Your task to perform on an android device: Add "alienware area 51" to the cart on amazon, then select checkout. Image 0: 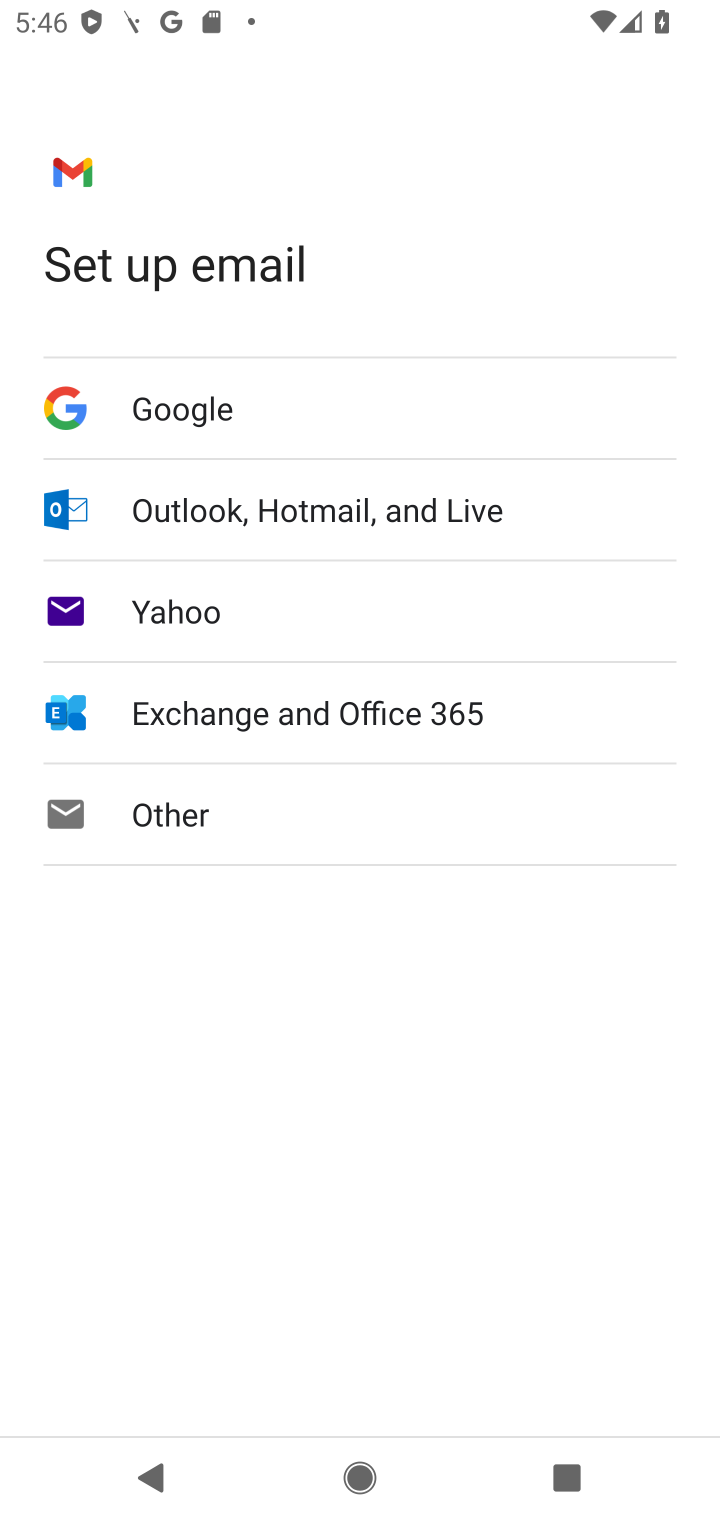
Step 0: press home button
Your task to perform on an android device: Add "alienware area 51" to the cart on amazon, then select checkout. Image 1: 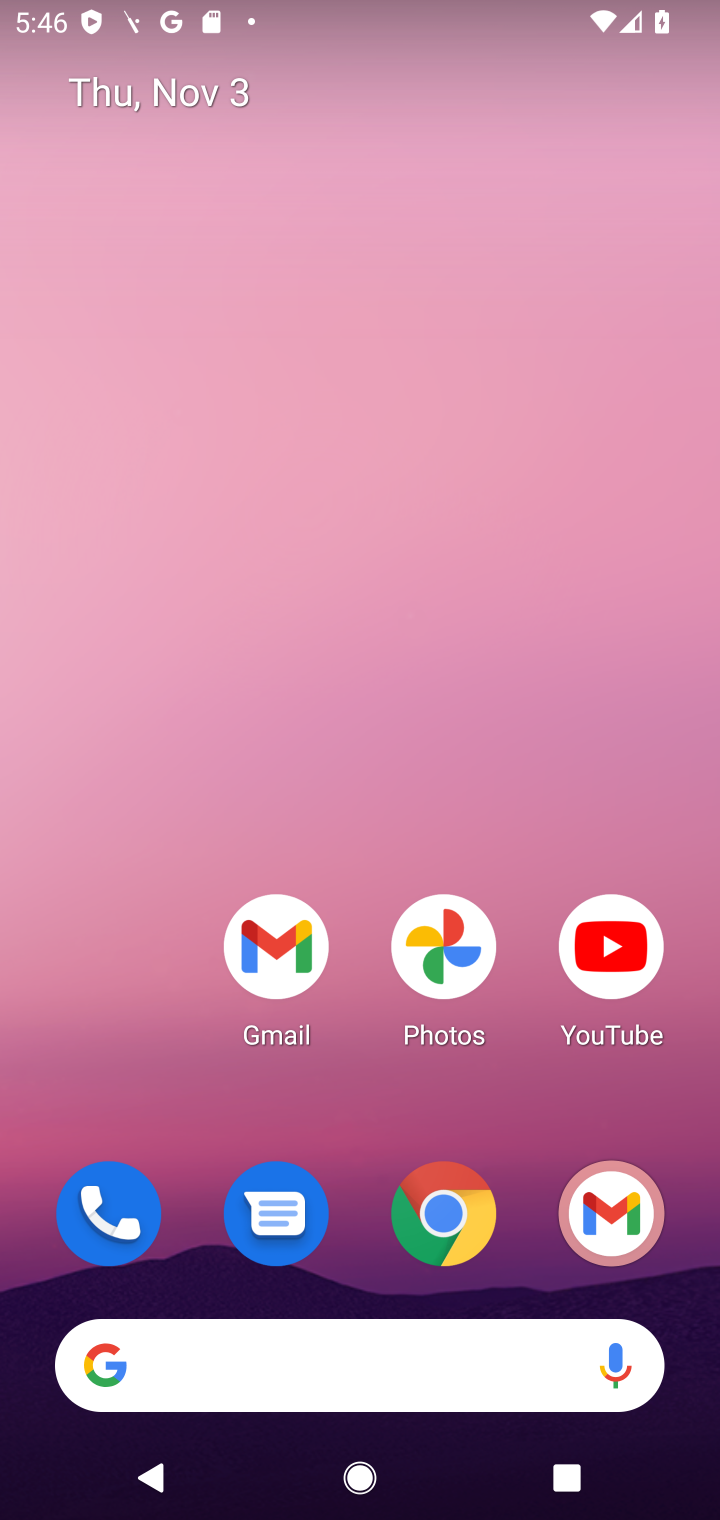
Step 1: click (456, 1234)
Your task to perform on an android device: Add "alienware area 51" to the cart on amazon, then select checkout. Image 2: 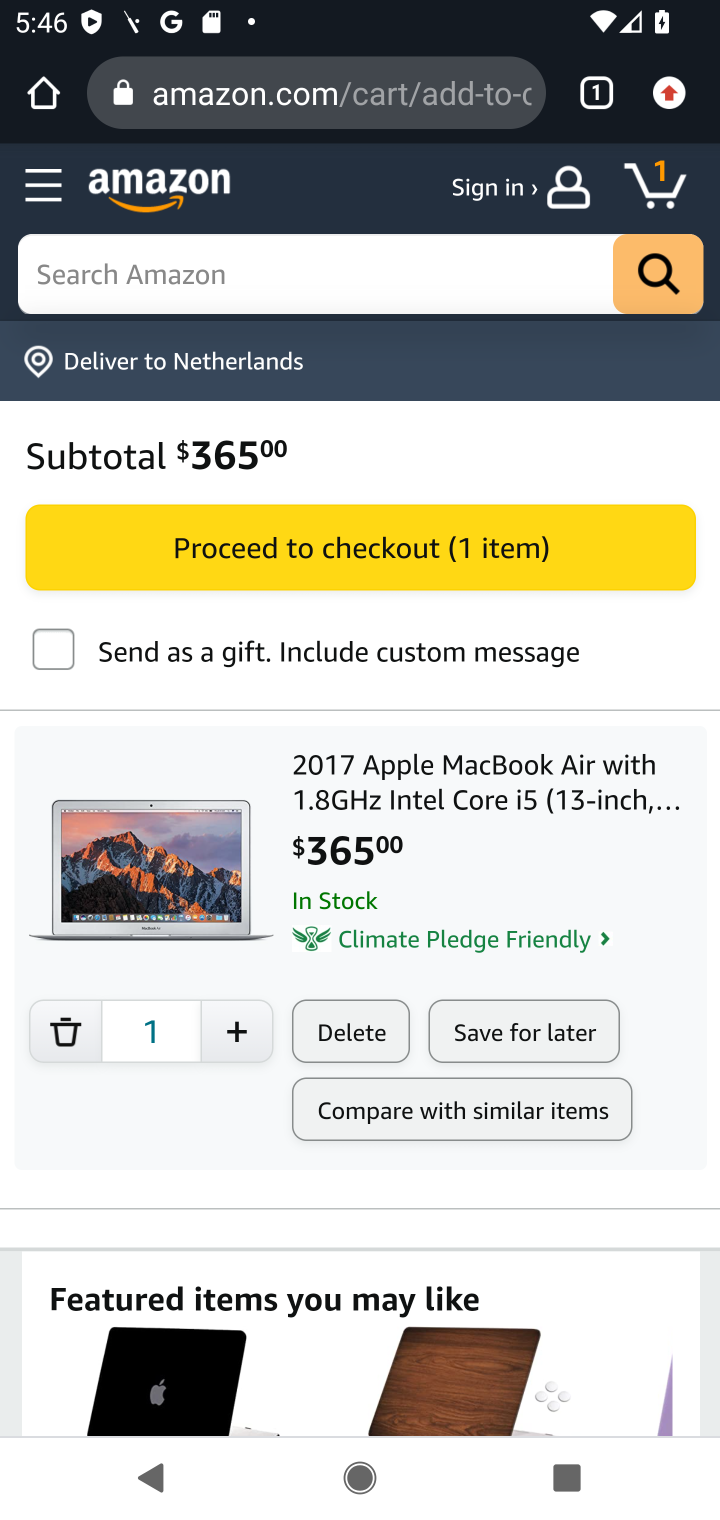
Step 2: click (273, 286)
Your task to perform on an android device: Add "alienware area 51" to the cart on amazon, then select checkout. Image 3: 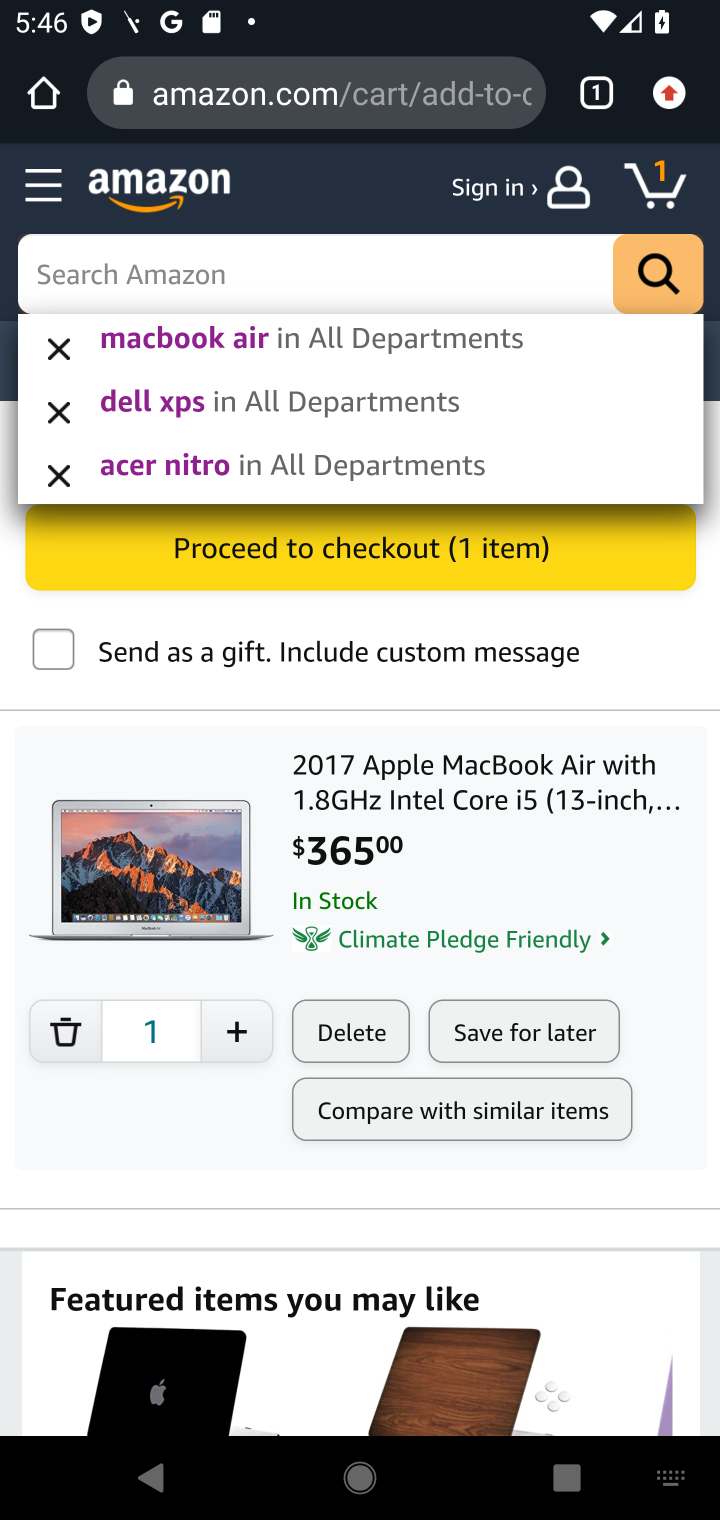
Step 3: type "alienware area 51"
Your task to perform on an android device: Add "alienware area 51" to the cart on amazon, then select checkout. Image 4: 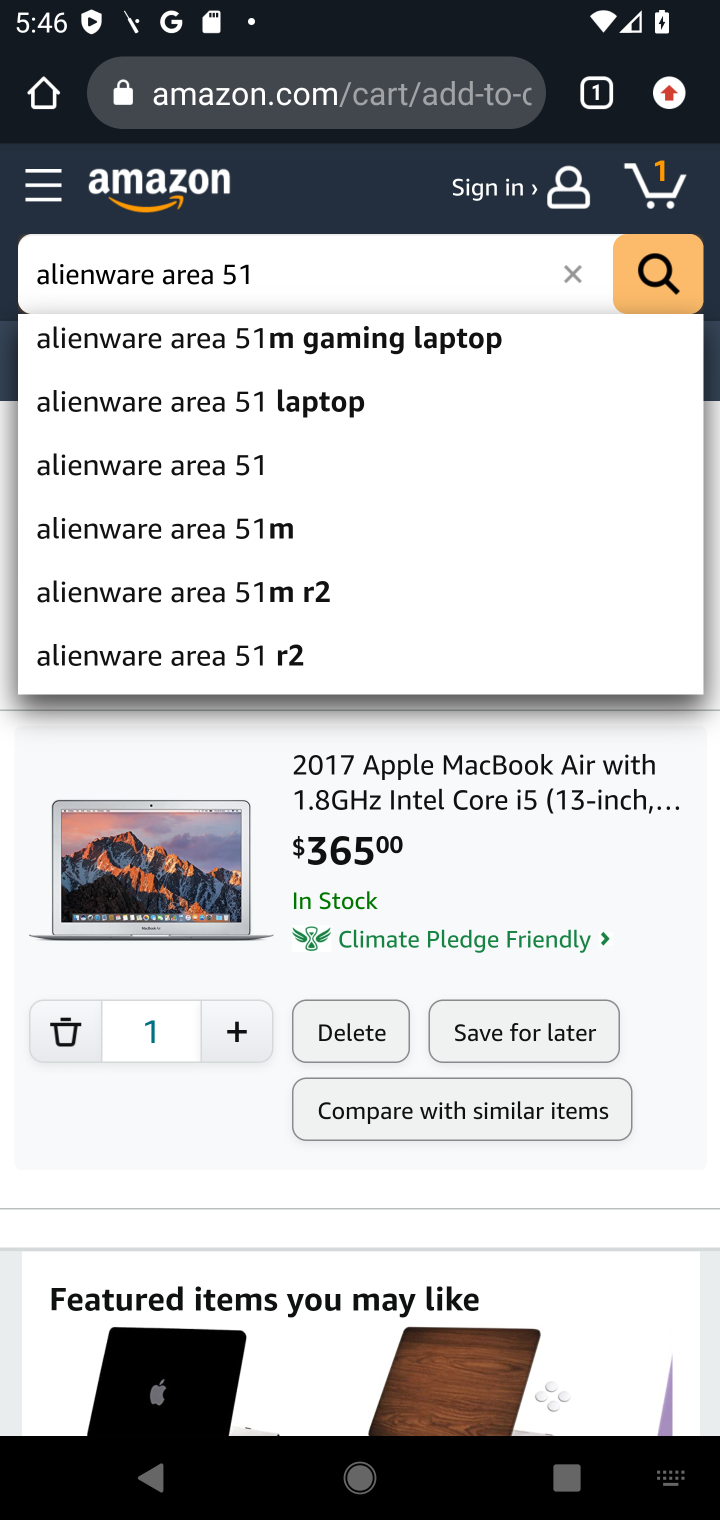
Step 4: click (661, 274)
Your task to perform on an android device: Add "alienware area 51" to the cart on amazon, then select checkout. Image 5: 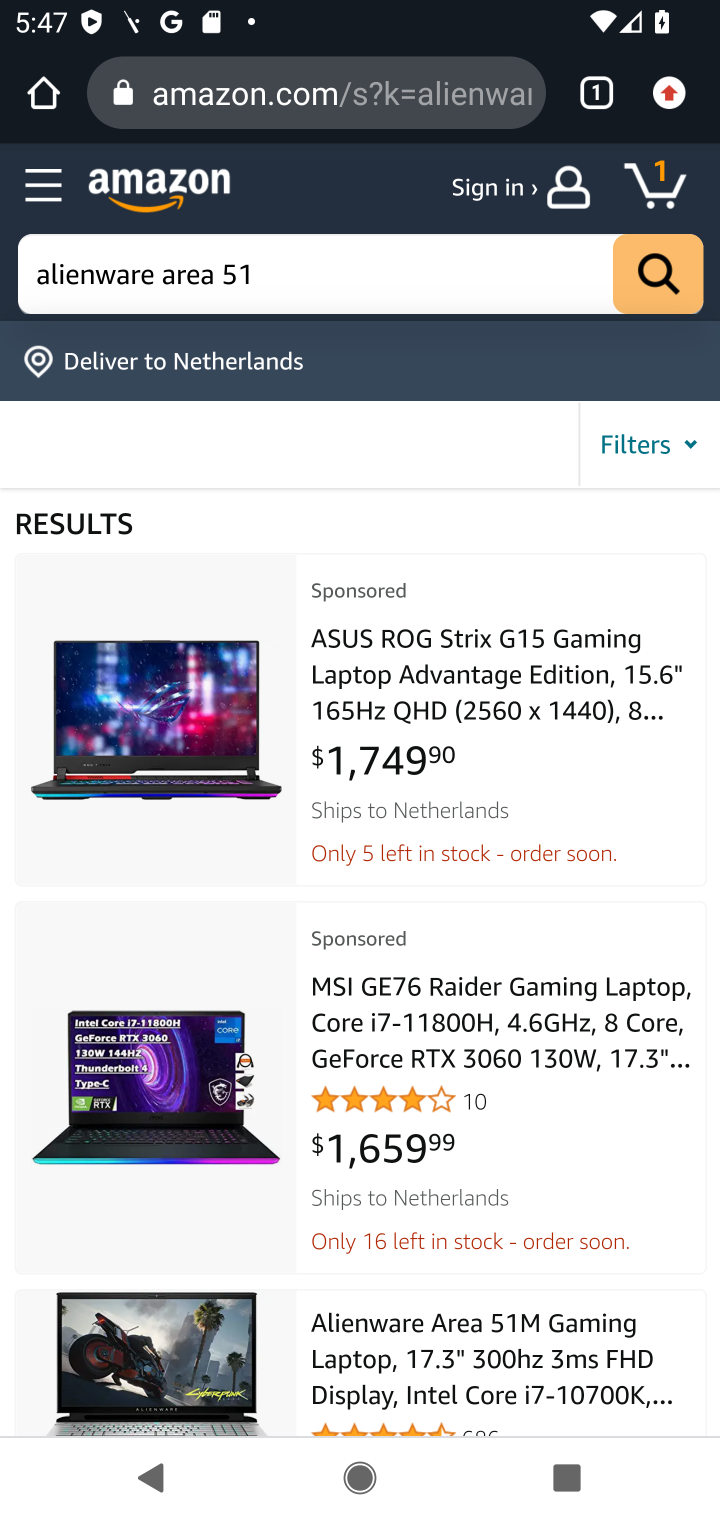
Step 5: drag from (255, 1183) to (332, 656)
Your task to perform on an android device: Add "alienware area 51" to the cart on amazon, then select checkout. Image 6: 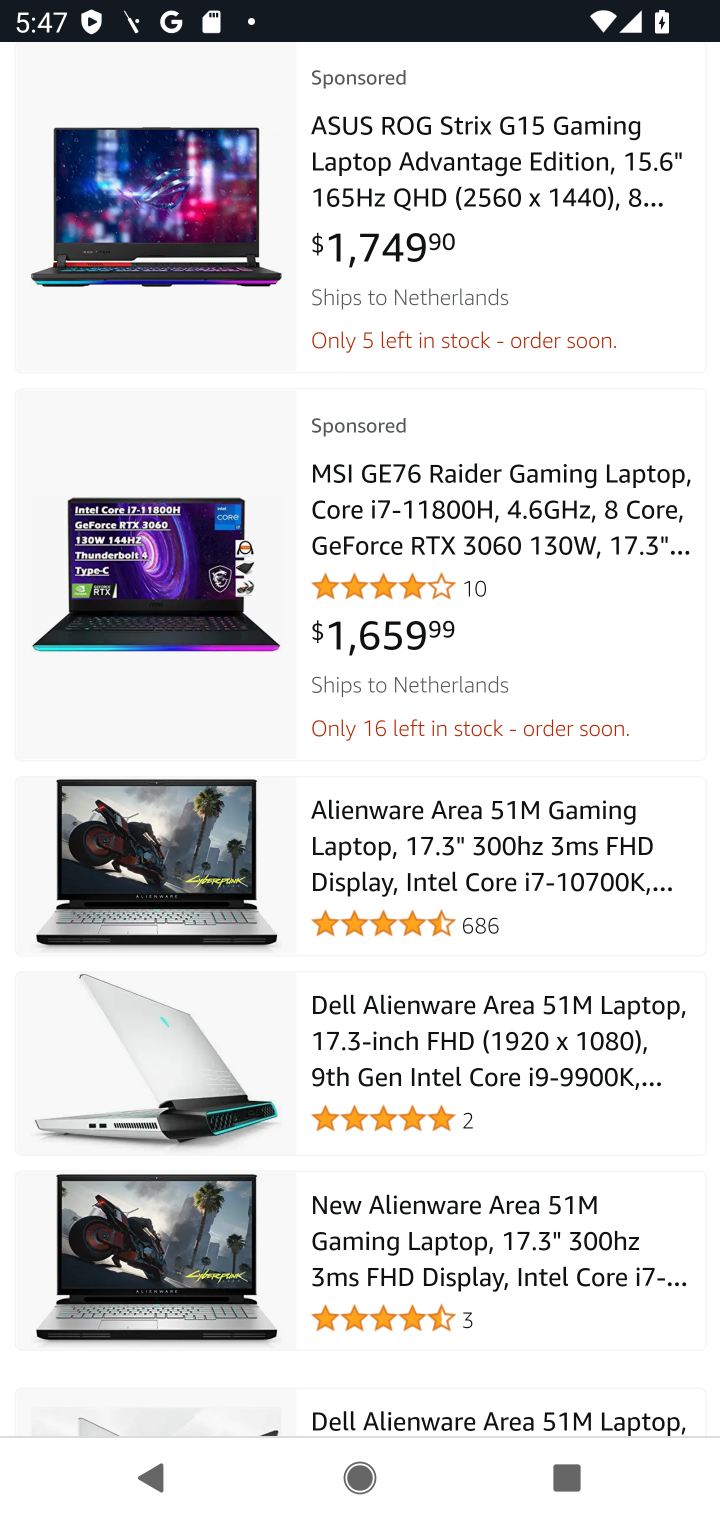
Step 6: click (285, 868)
Your task to perform on an android device: Add "alienware area 51" to the cart on amazon, then select checkout. Image 7: 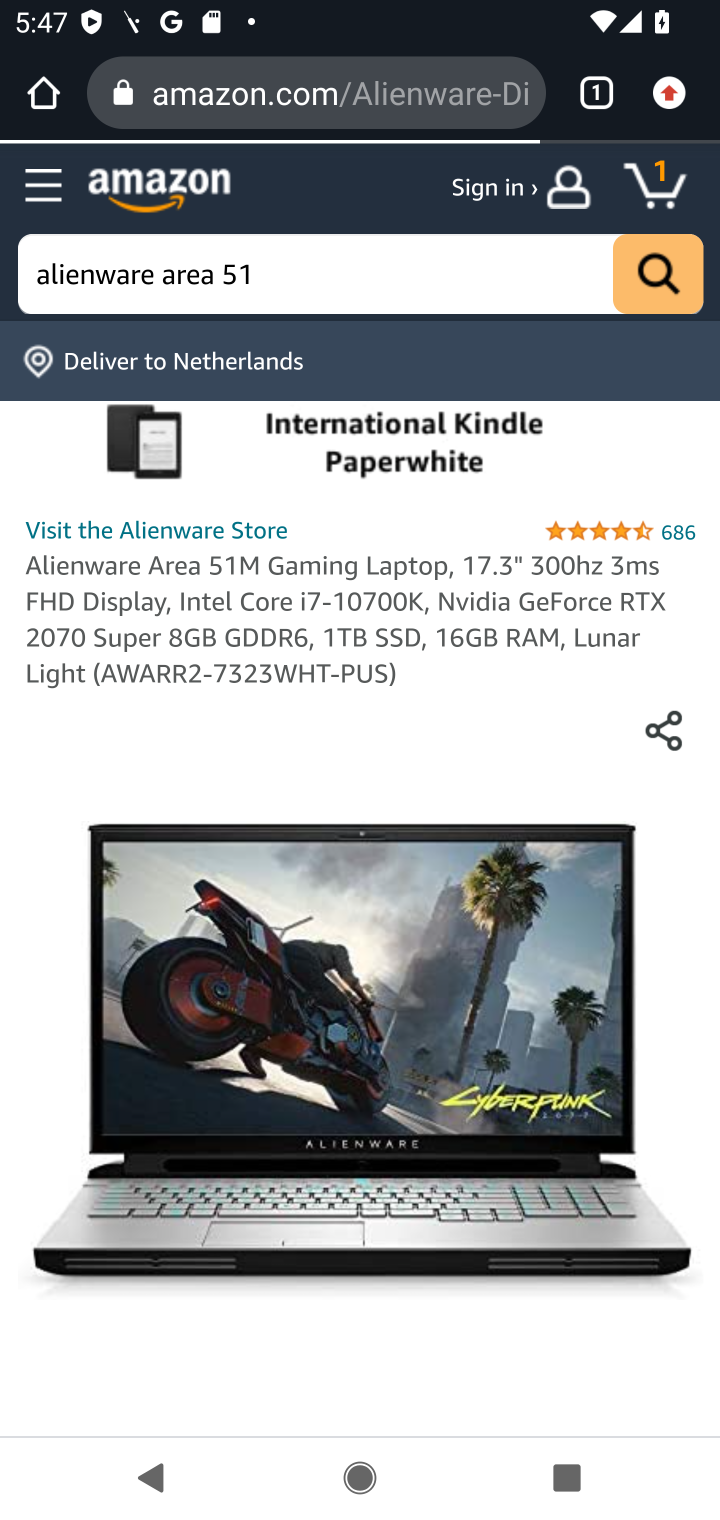
Step 7: drag from (285, 868) to (338, 378)
Your task to perform on an android device: Add "alienware area 51" to the cart on amazon, then select checkout. Image 8: 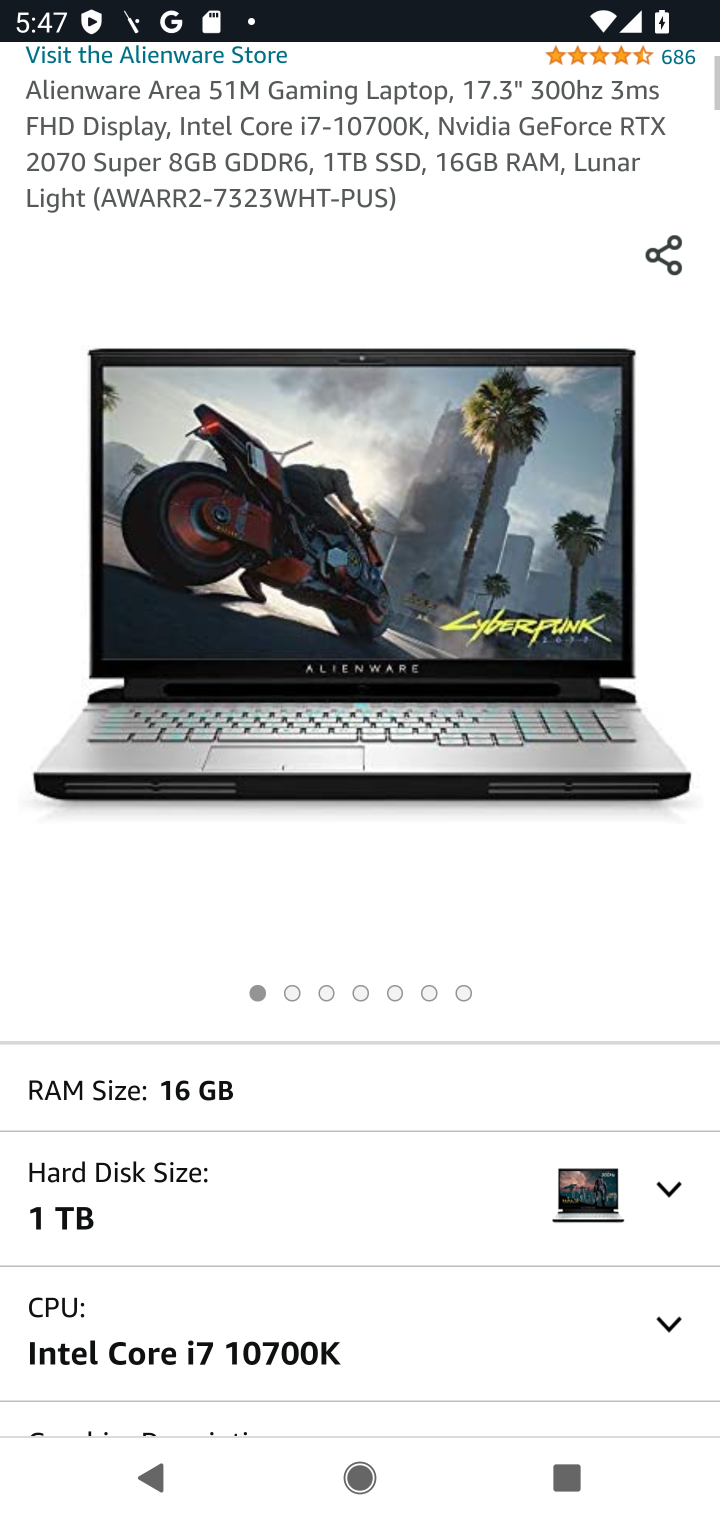
Step 8: drag from (336, 1037) to (395, 377)
Your task to perform on an android device: Add "alienware area 51" to the cart on amazon, then select checkout. Image 9: 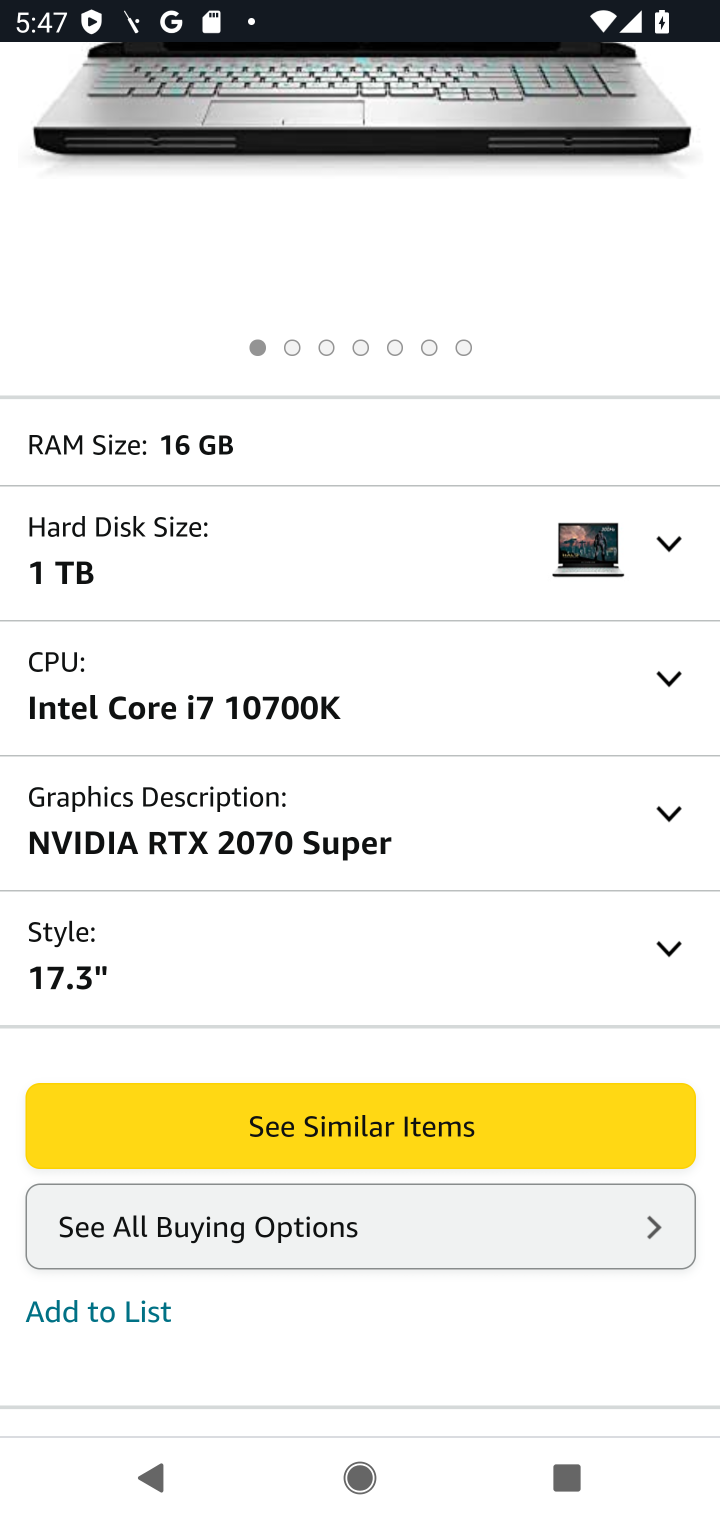
Step 9: drag from (342, 950) to (382, 476)
Your task to perform on an android device: Add "alienware area 51" to the cart on amazon, then select checkout. Image 10: 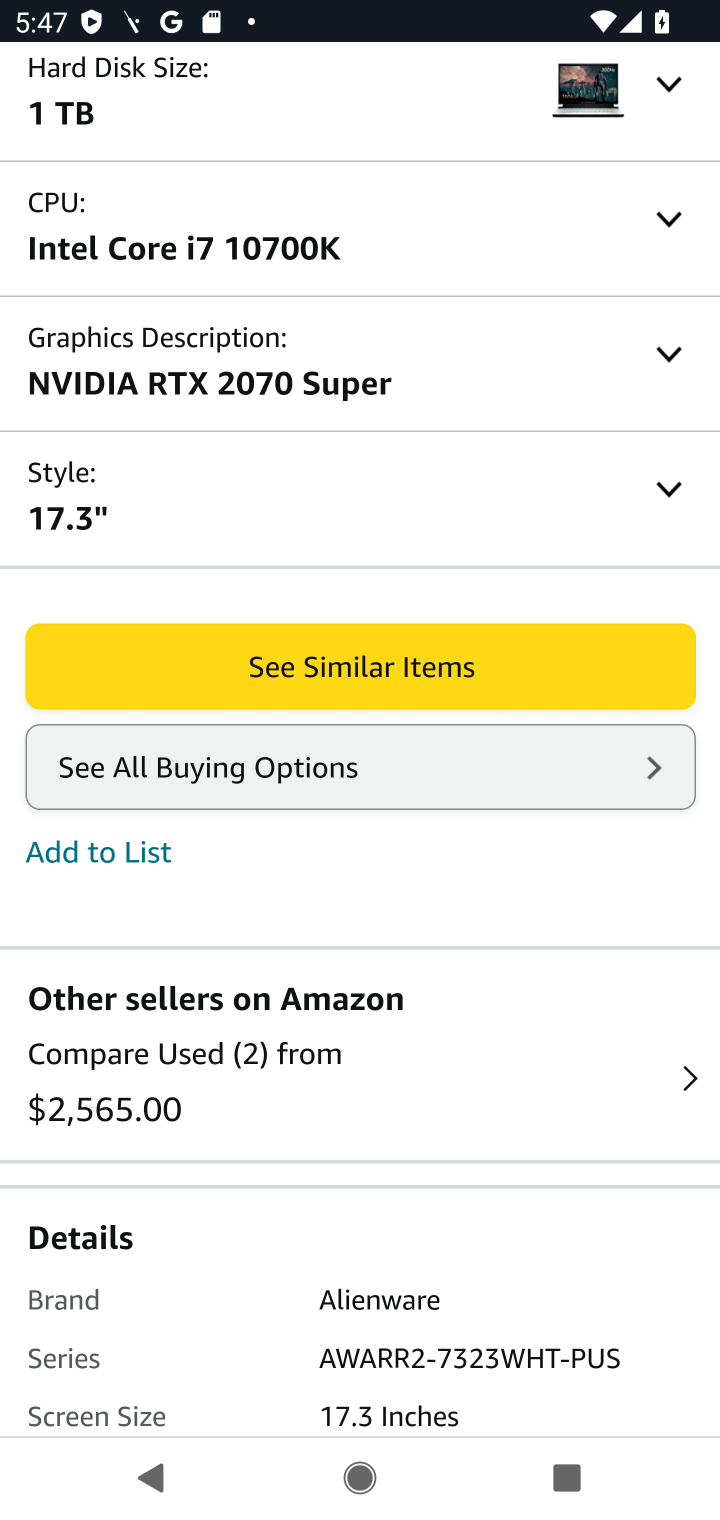
Step 10: drag from (382, 476) to (336, 1305)
Your task to perform on an android device: Add "alienware area 51" to the cart on amazon, then select checkout. Image 11: 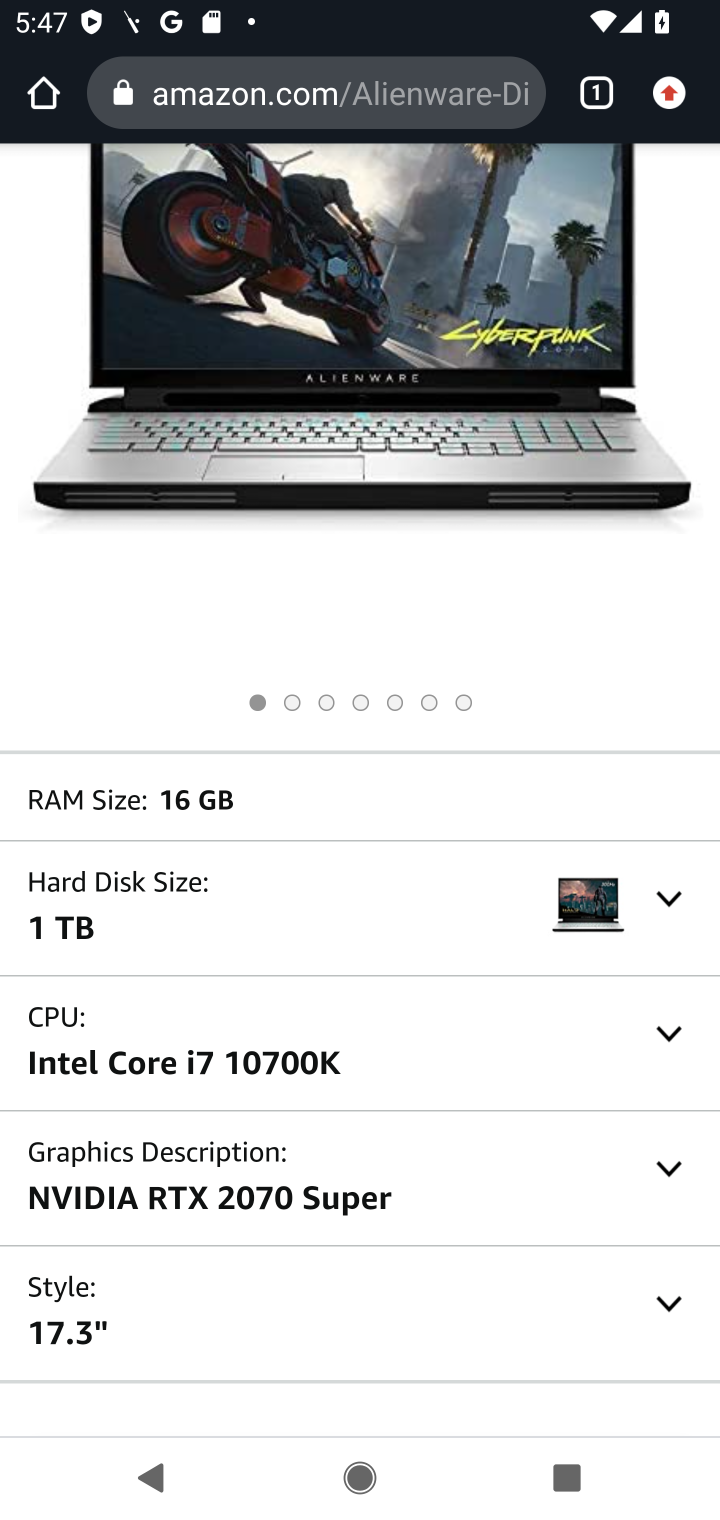
Step 11: drag from (313, 864) to (294, 1392)
Your task to perform on an android device: Add "alienware area 51" to the cart on amazon, then select checkout. Image 12: 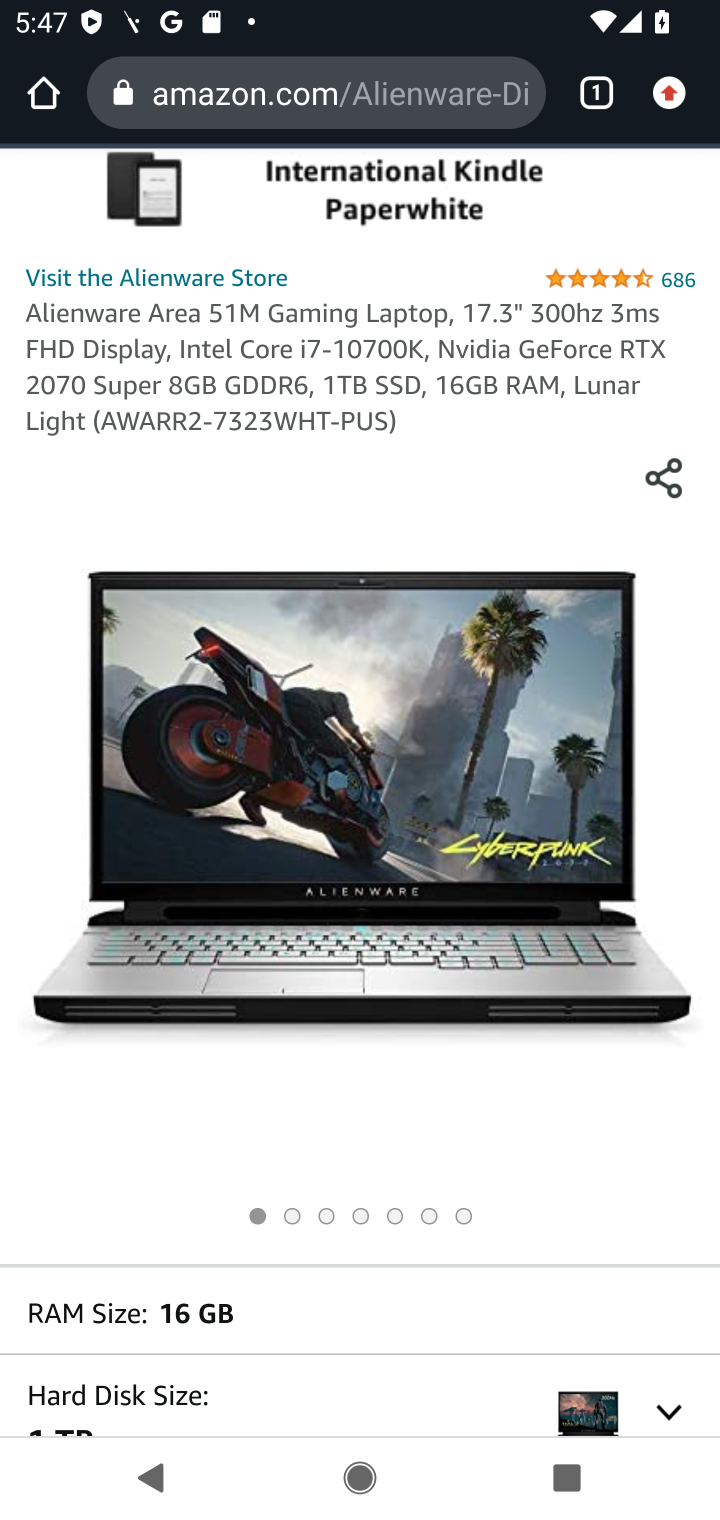
Step 12: drag from (349, 844) to (289, 1453)
Your task to perform on an android device: Add "alienware area 51" to the cart on amazon, then select checkout. Image 13: 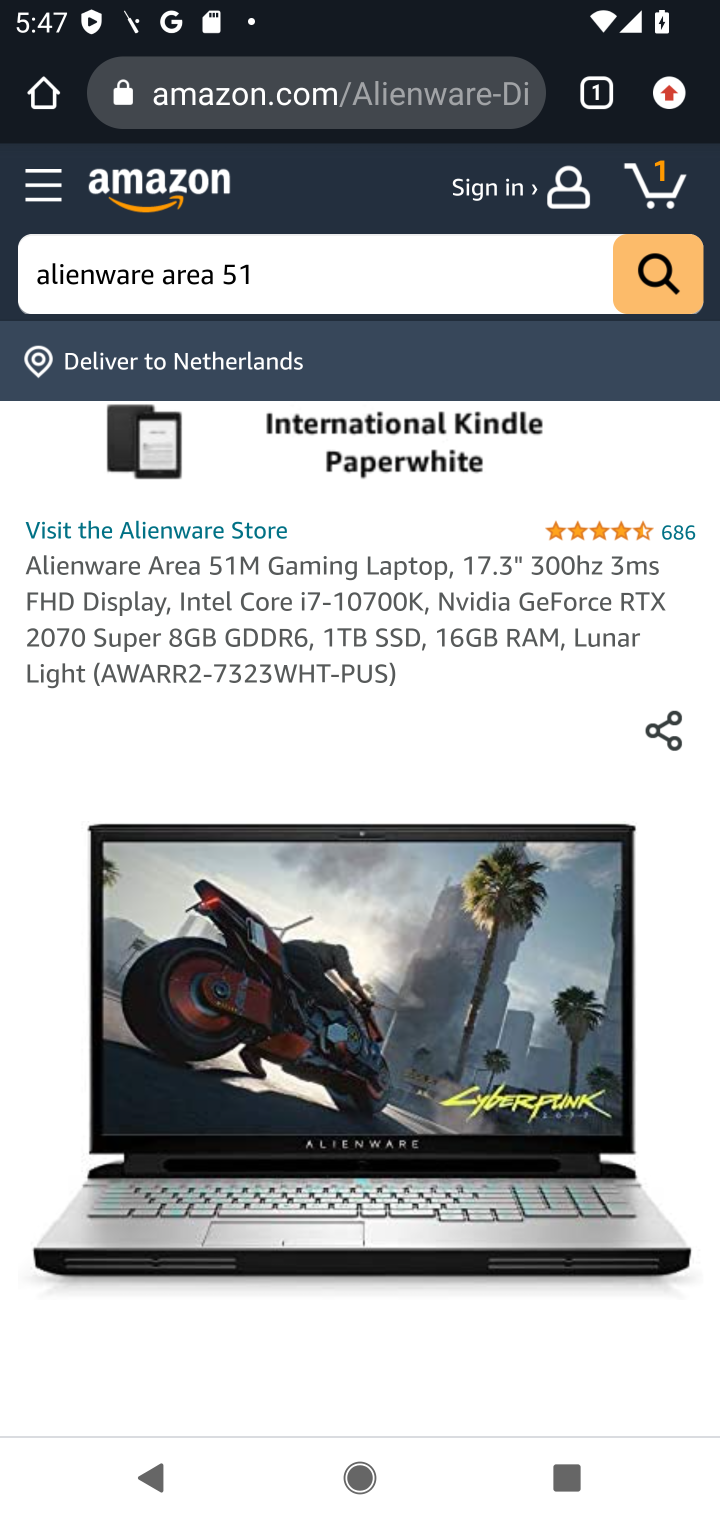
Step 13: drag from (349, 644) to (286, 1312)
Your task to perform on an android device: Add "alienware area 51" to the cart on amazon, then select checkout. Image 14: 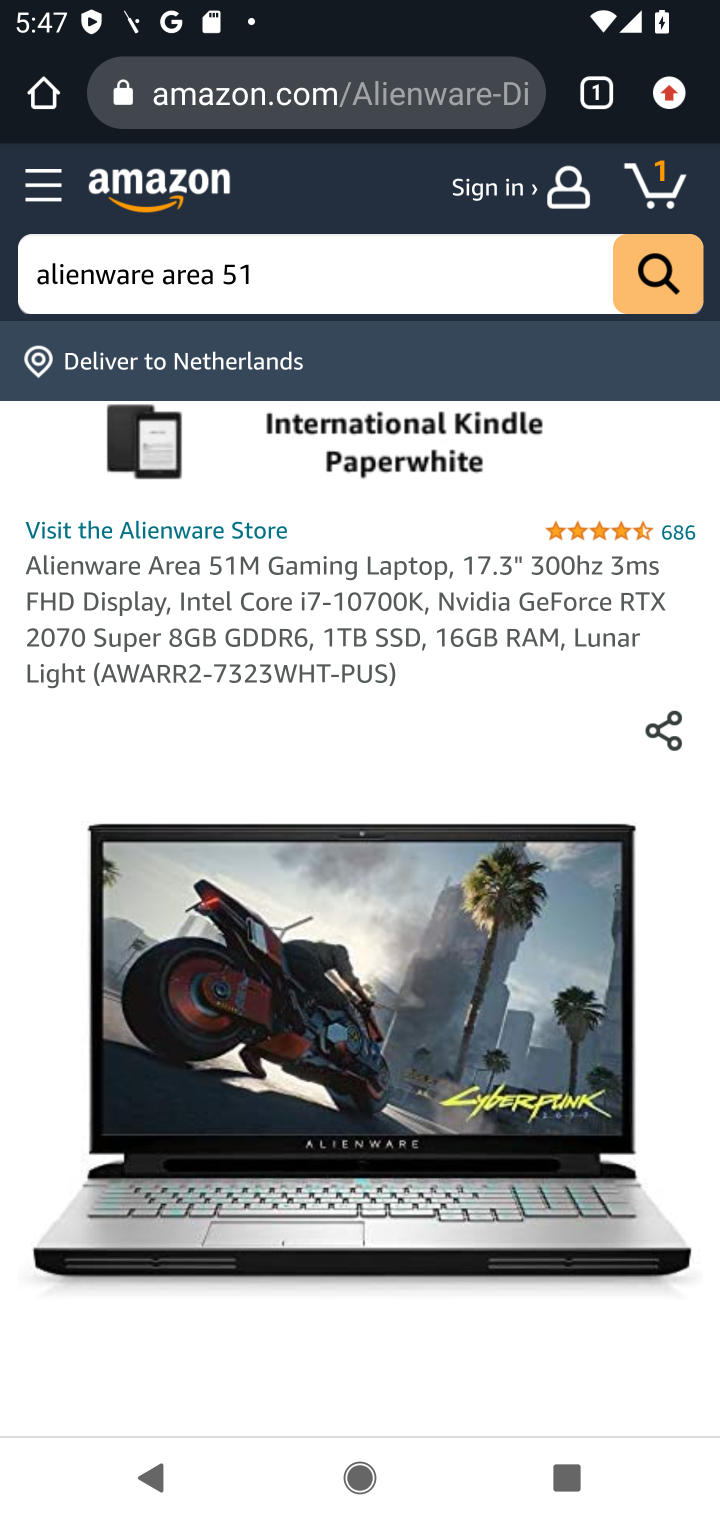
Step 14: press back button
Your task to perform on an android device: Add "alienware area 51" to the cart on amazon, then select checkout. Image 15: 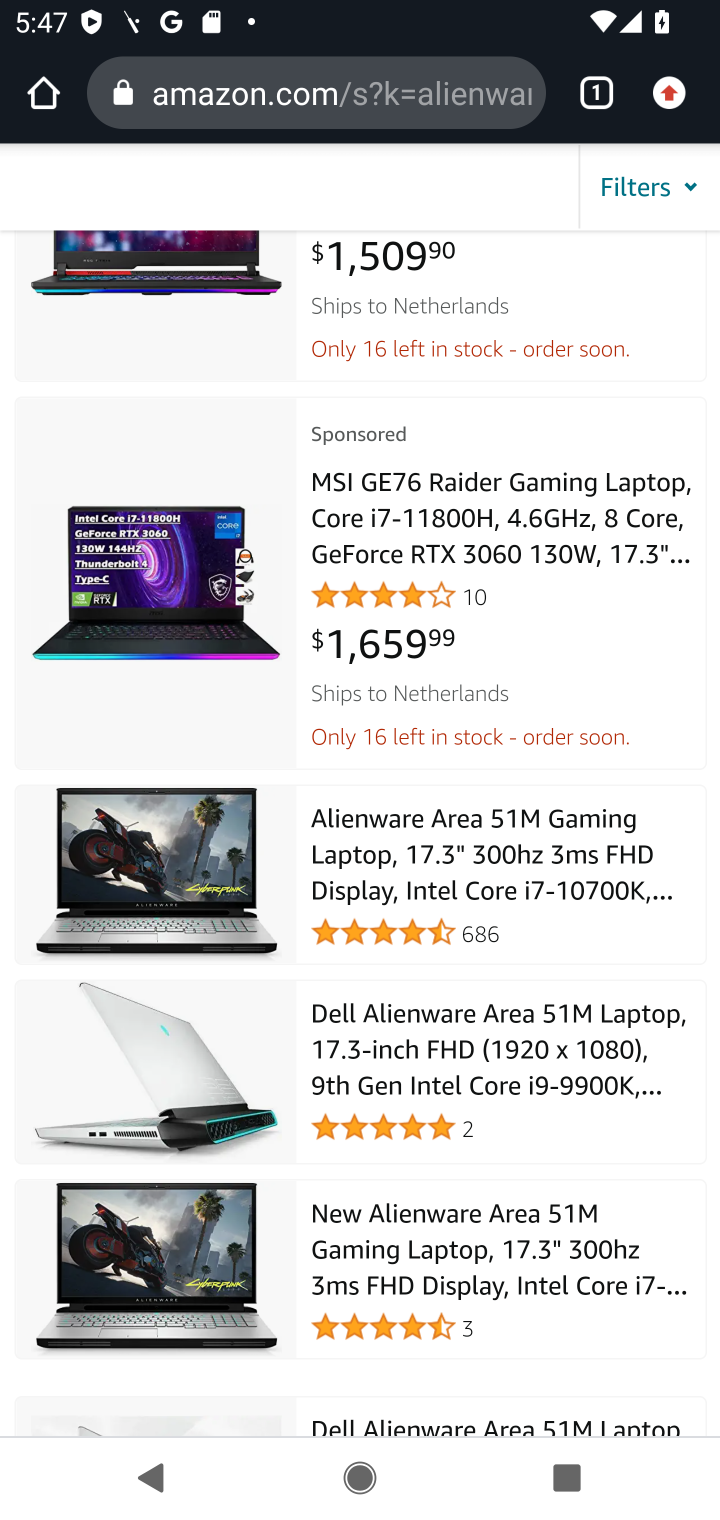
Step 15: drag from (345, 1076) to (371, 864)
Your task to perform on an android device: Add "alienware area 51" to the cart on amazon, then select checkout. Image 16: 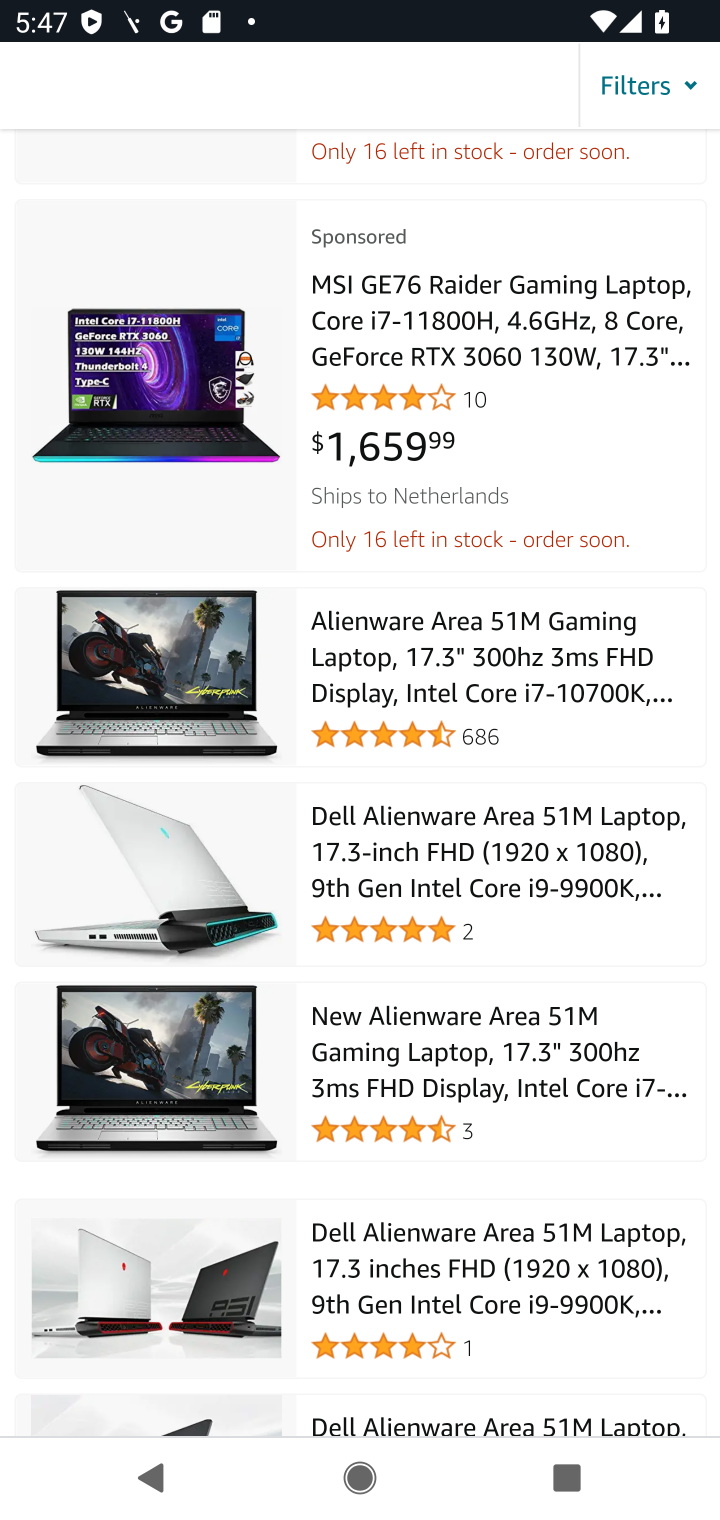
Step 16: click (312, 1066)
Your task to perform on an android device: Add "alienware area 51" to the cart on amazon, then select checkout. Image 17: 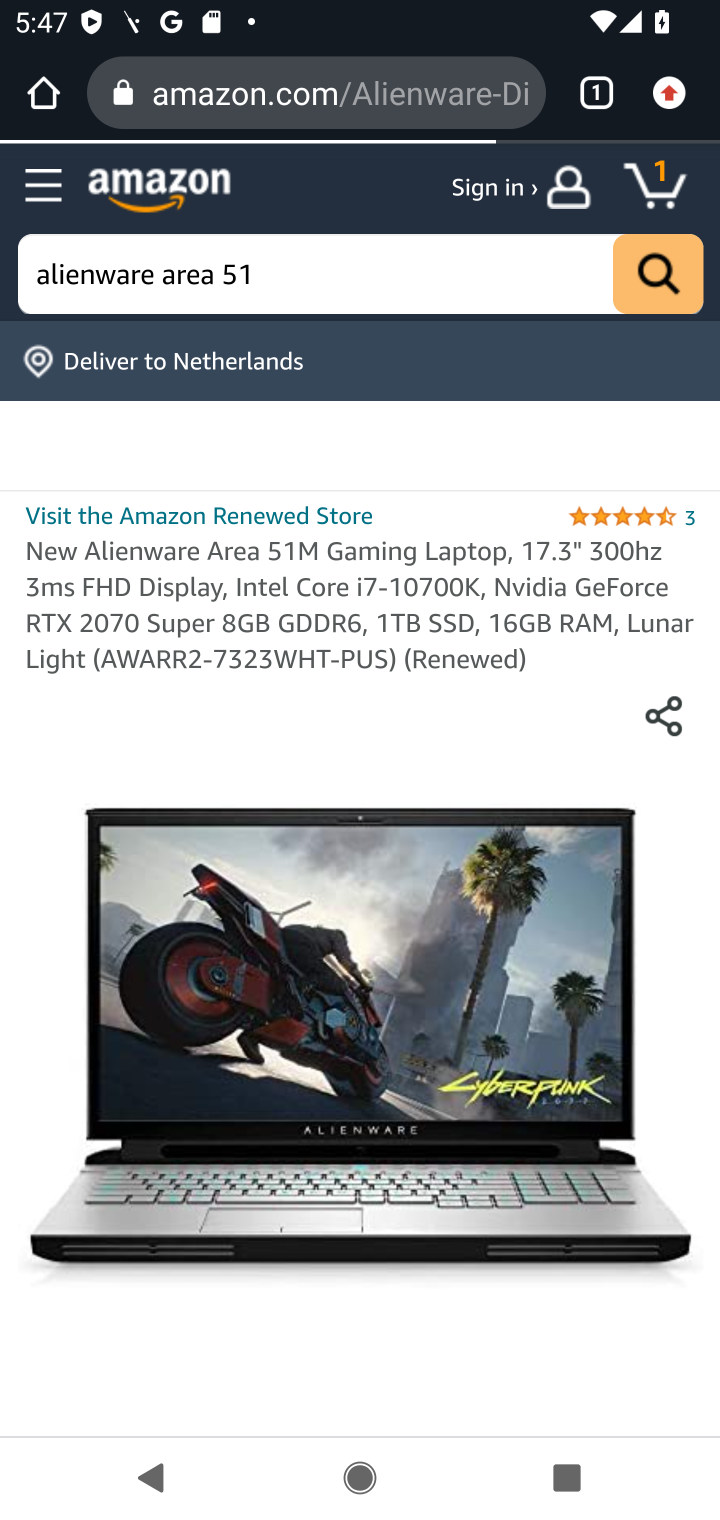
Step 17: task complete